Your task to perform on an android device: Open display settings Image 0: 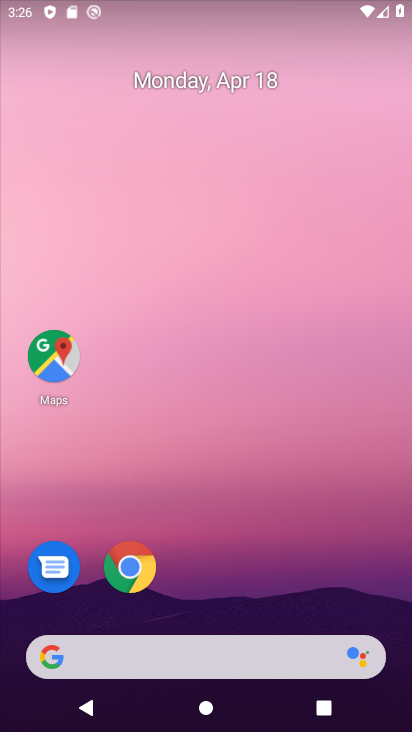
Step 0: drag from (295, 586) to (302, 108)
Your task to perform on an android device: Open display settings Image 1: 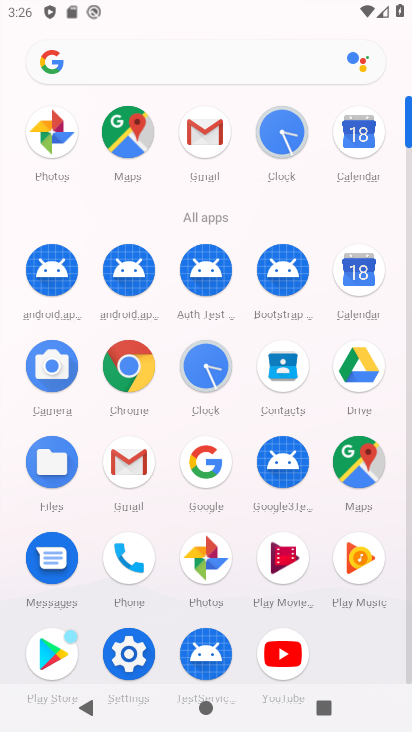
Step 1: click (126, 648)
Your task to perform on an android device: Open display settings Image 2: 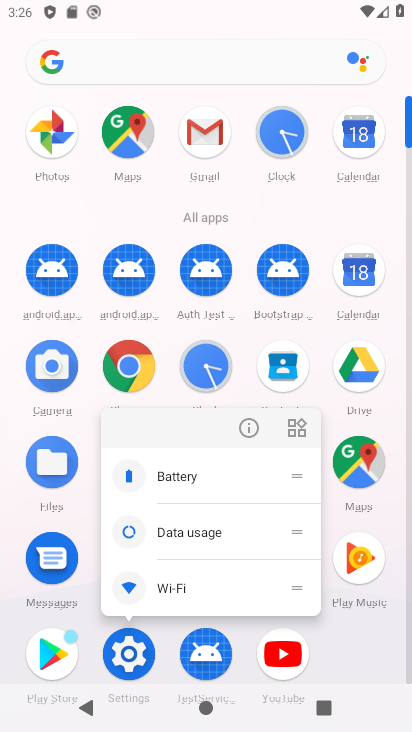
Step 2: click (127, 647)
Your task to perform on an android device: Open display settings Image 3: 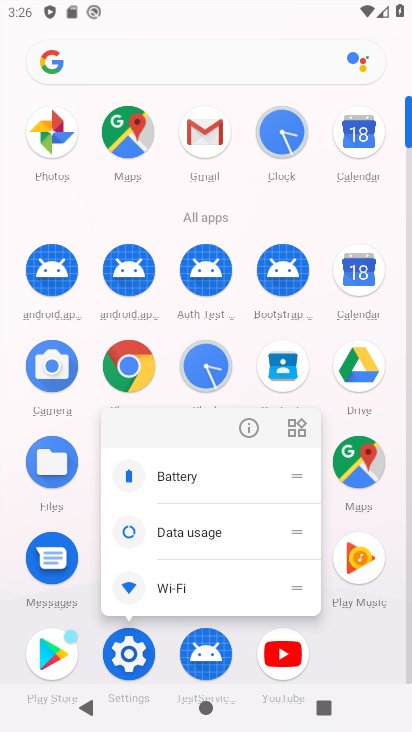
Step 3: click (138, 643)
Your task to perform on an android device: Open display settings Image 4: 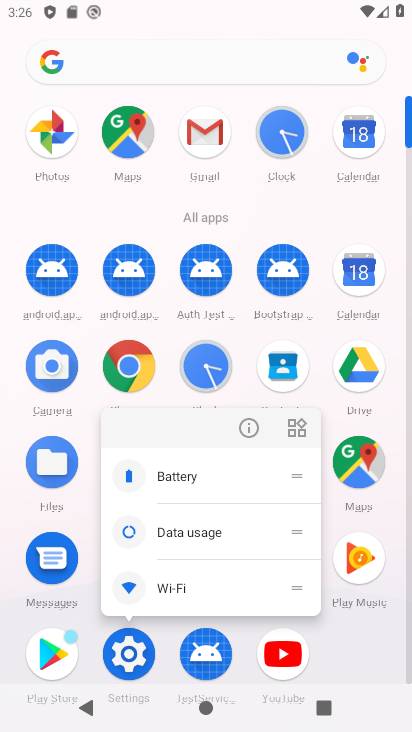
Step 4: click (141, 635)
Your task to perform on an android device: Open display settings Image 5: 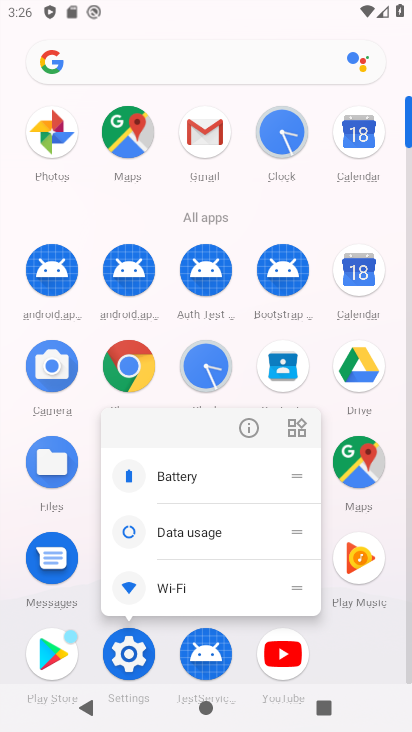
Step 5: click (145, 662)
Your task to perform on an android device: Open display settings Image 6: 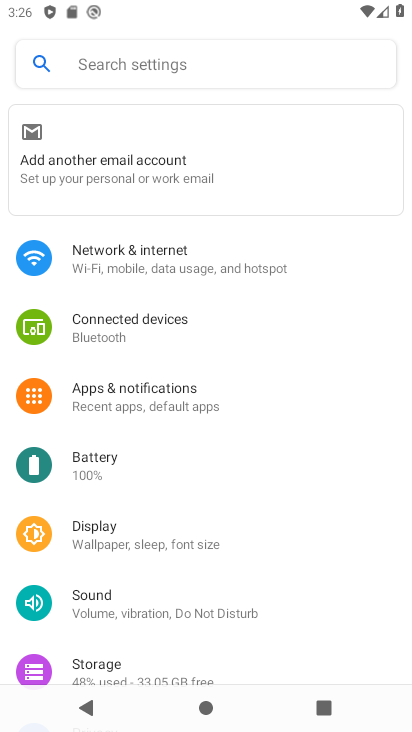
Step 6: click (169, 535)
Your task to perform on an android device: Open display settings Image 7: 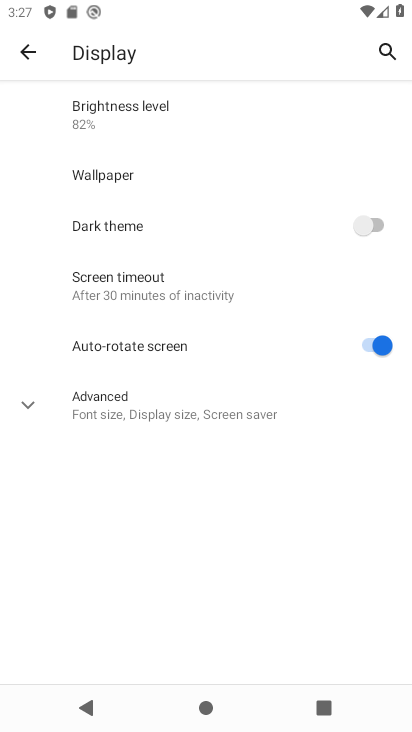
Step 7: task complete